Your task to perform on an android device: Open privacy settings Image 0: 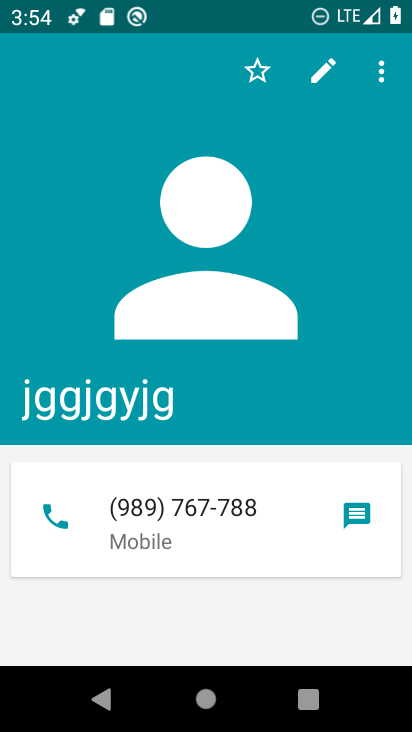
Step 0: press home button
Your task to perform on an android device: Open privacy settings Image 1: 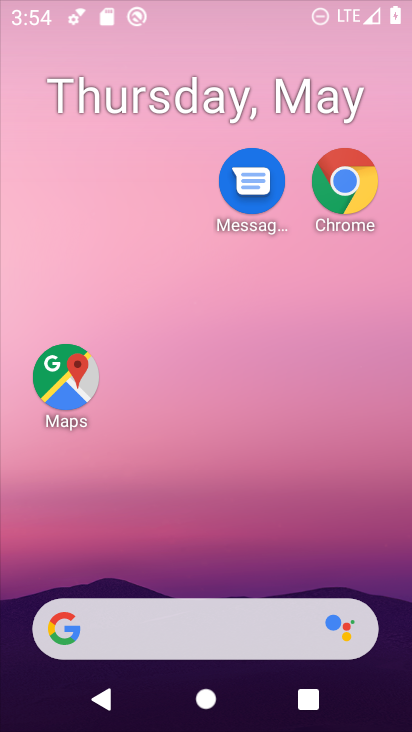
Step 1: drag from (332, 615) to (355, 22)
Your task to perform on an android device: Open privacy settings Image 2: 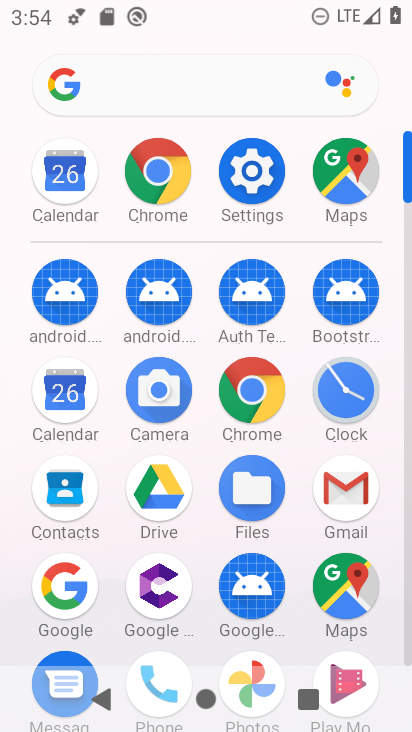
Step 2: click (250, 174)
Your task to perform on an android device: Open privacy settings Image 3: 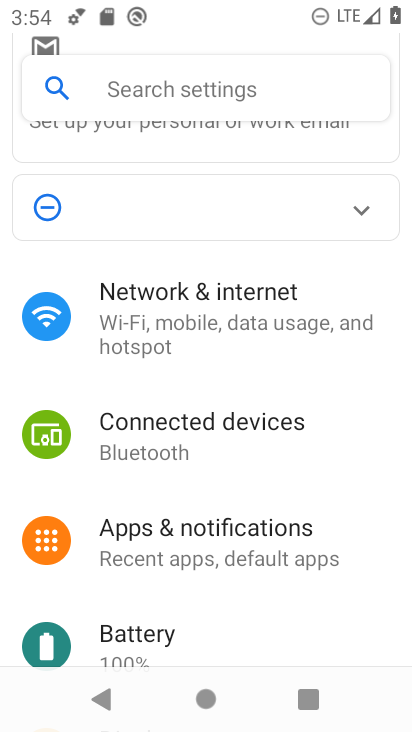
Step 3: drag from (279, 605) to (286, 0)
Your task to perform on an android device: Open privacy settings Image 4: 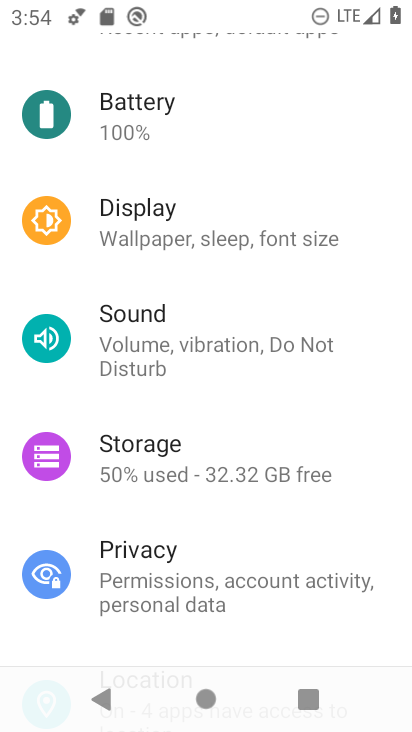
Step 4: click (279, 576)
Your task to perform on an android device: Open privacy settings Image 5: 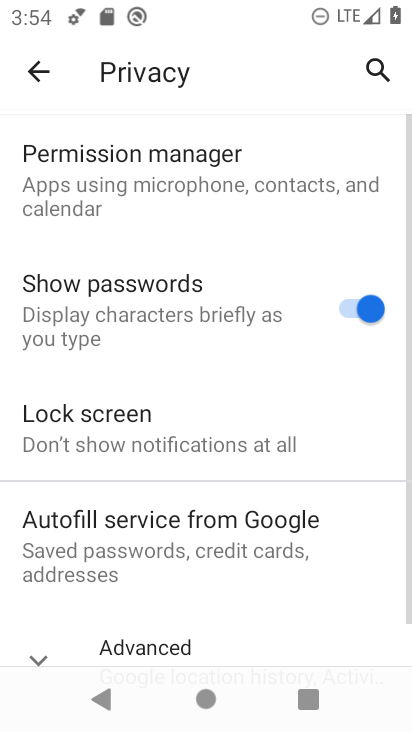
Step 5: task complete